Your task to perform on an android device: Open internet settings Image 0: 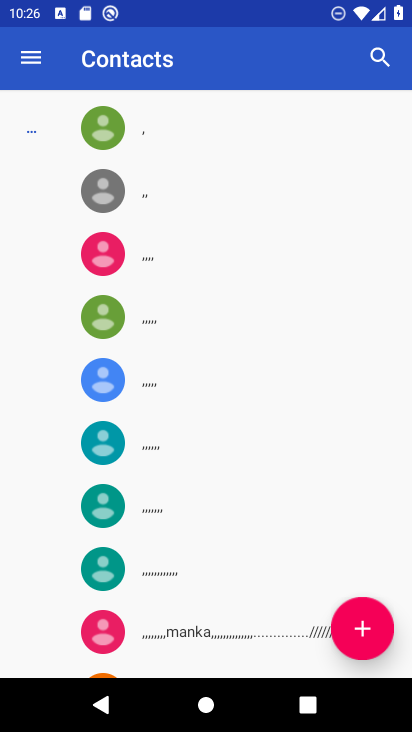
Step 0: press home button
Your task to perform on an android device: Open internet settings Image 1: 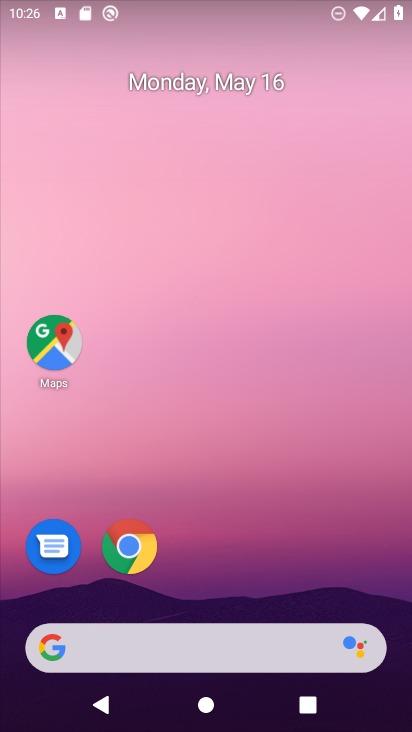
Step 1: drag from (228, 16) to (189, 593)
Your task to perform on an android device: Open internet settings Image 2: 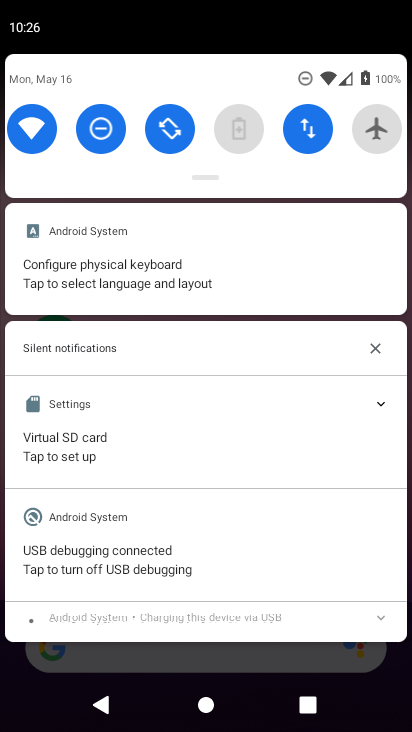
Step 2: click (304, 116)
Your task to perform on an android device: Open internet settings Image 3: 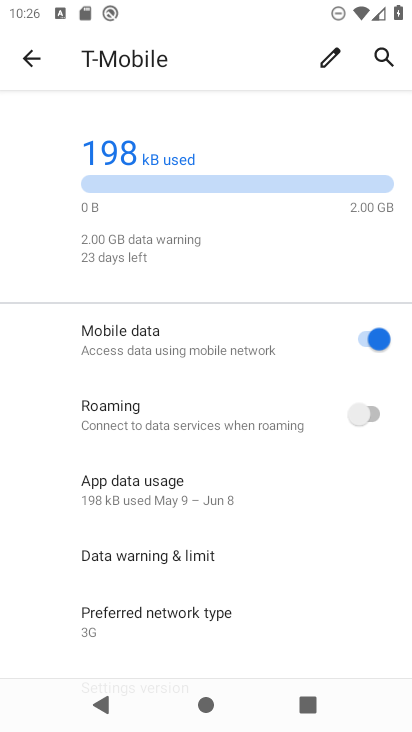
Step 3: task complete